Your task to perform on an android device: turn notification dots off Image 0: 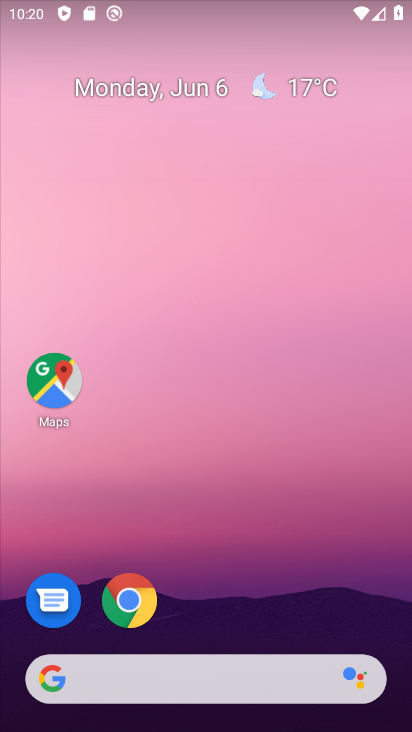
Step 0: drag from (296, 638) to (262, 186)
Your task to perform on an android device: turn notification dots off Image 1: 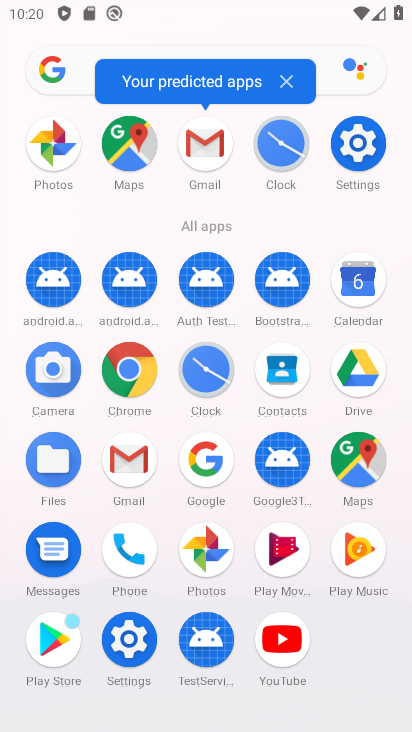
Step 1: click (355, 145)
Your task to perform on an android device: turn notification dots off Image 2: 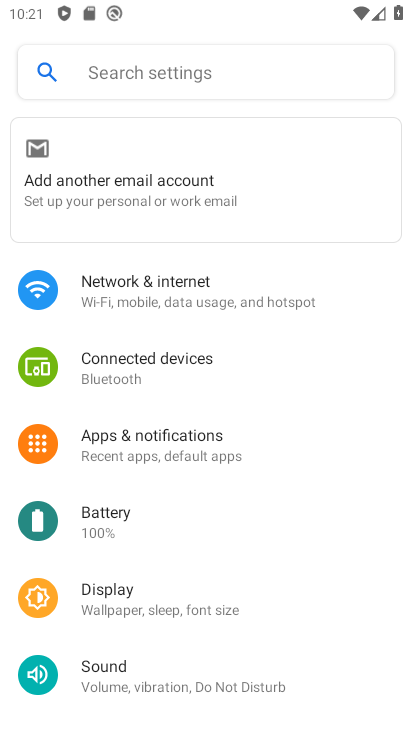
Step 2: click (242, 451)
Your task to perform on an android device: turn notification dots off Image 3: 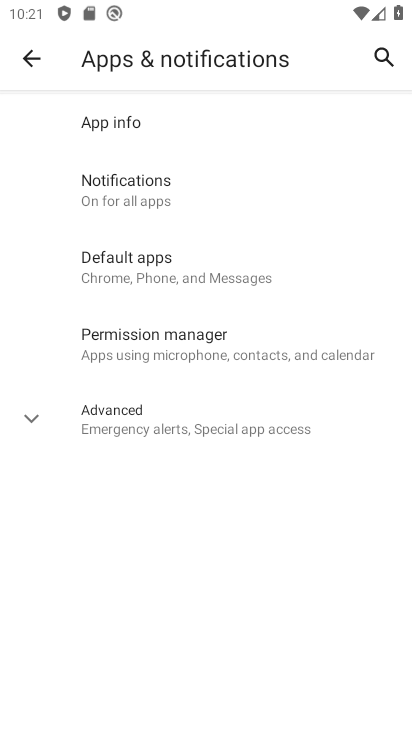
Step 3: click (218, 193)
Your task to perform on an android device: turn notification dots off Image 4: 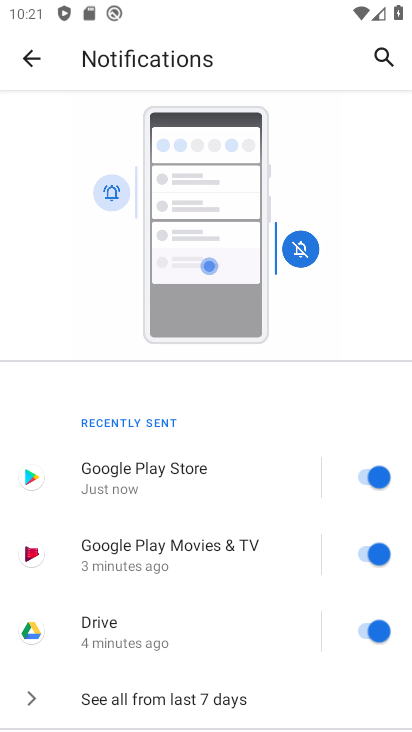
Step 4: drag from (275, 698) to (215, 159)
Your task to perform on an android device: turn notification dots off Image 5: 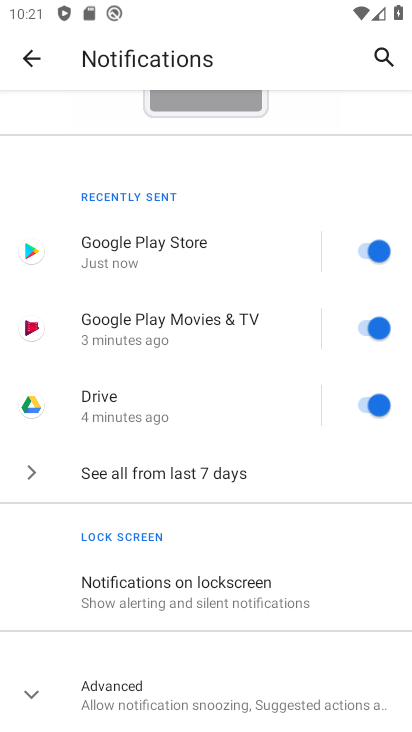
Step 5: drag from (229, 612) to (210, 214)
Your task to perform on an android device: turn notification dots off Image 6: 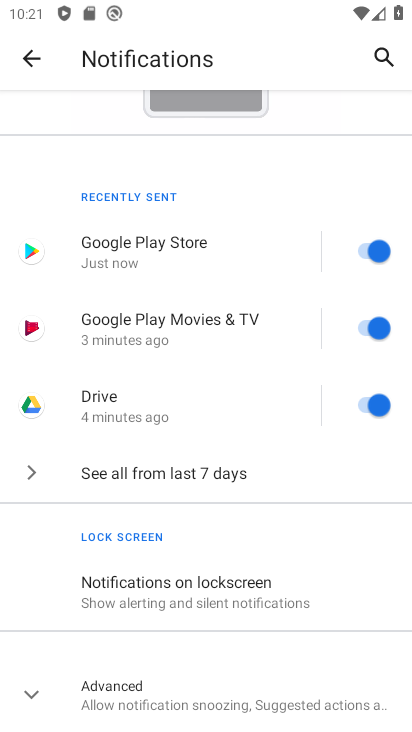
Step 6: click (227, 682)
Your task to perform on an android device: turn notification dots off Image 7: 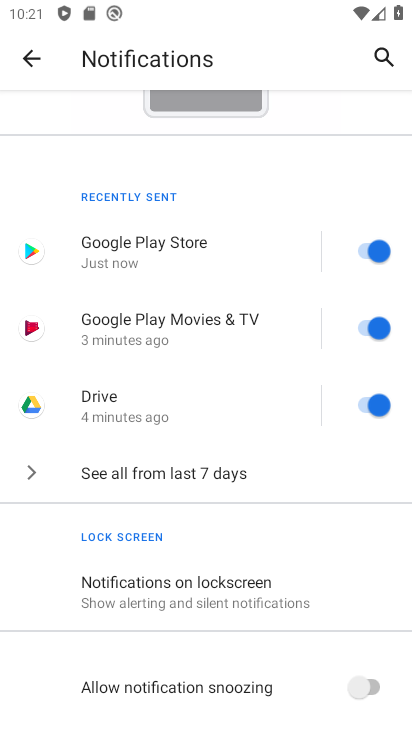
Step 7: drag from (227, 682) to (190, 244)
Your task to perform on an android device: turn notification dots off Image 8: 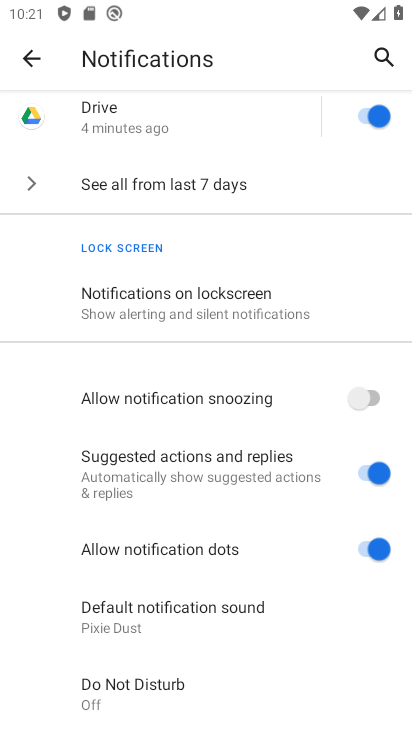
Step 8: click (374, 558)
Your task to perform on an android device: turn notification dots off Image 9: 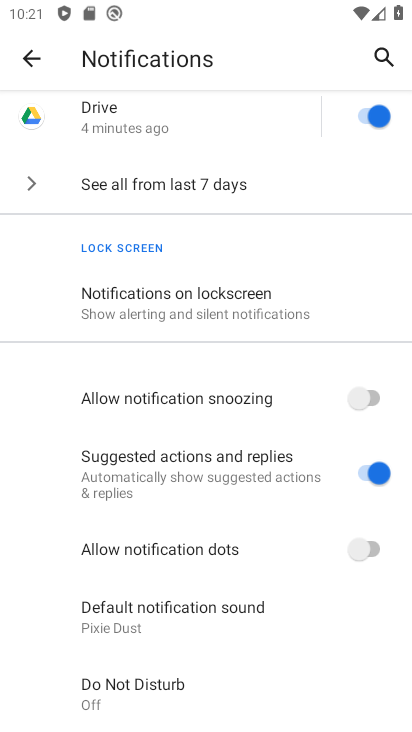
Step 9: task complete